Your task to perform on an android device: Show me popular games on the Play Store Image 0: 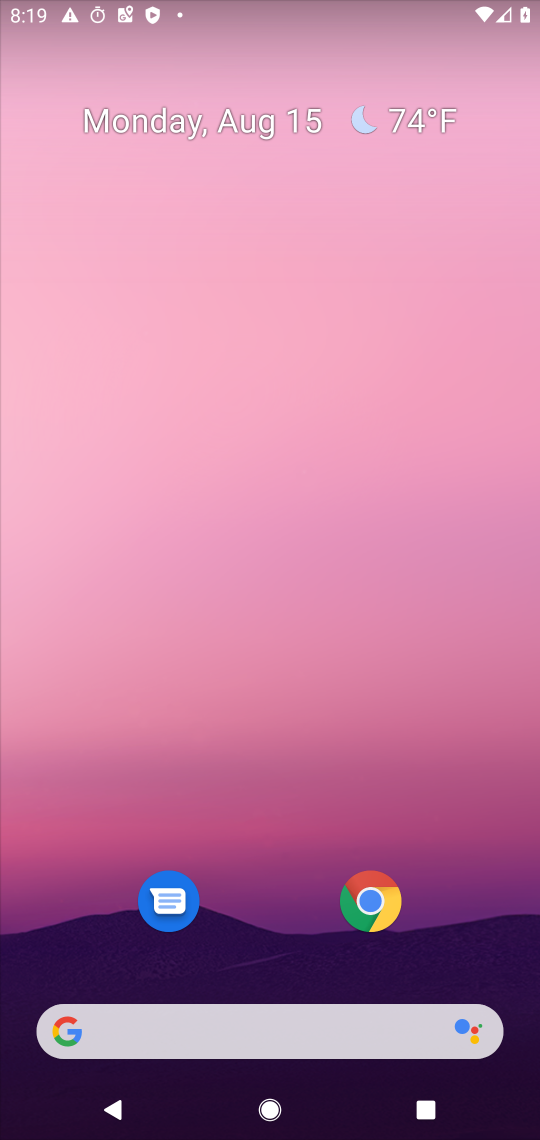
Step 0: drag from (241, 804) to (271, 158)
Your task to perform on an android device: Show me popular games on the Play Store Image 1: 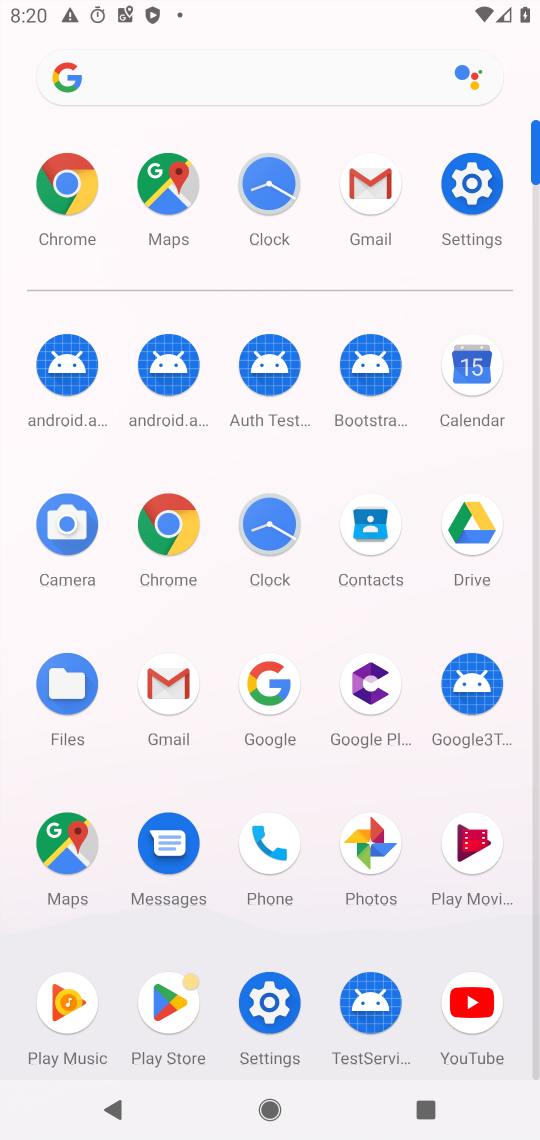
Step 1: click (166, 1014)
Your task to perform on an android device: Show me popular games on the Play Store Image 2: 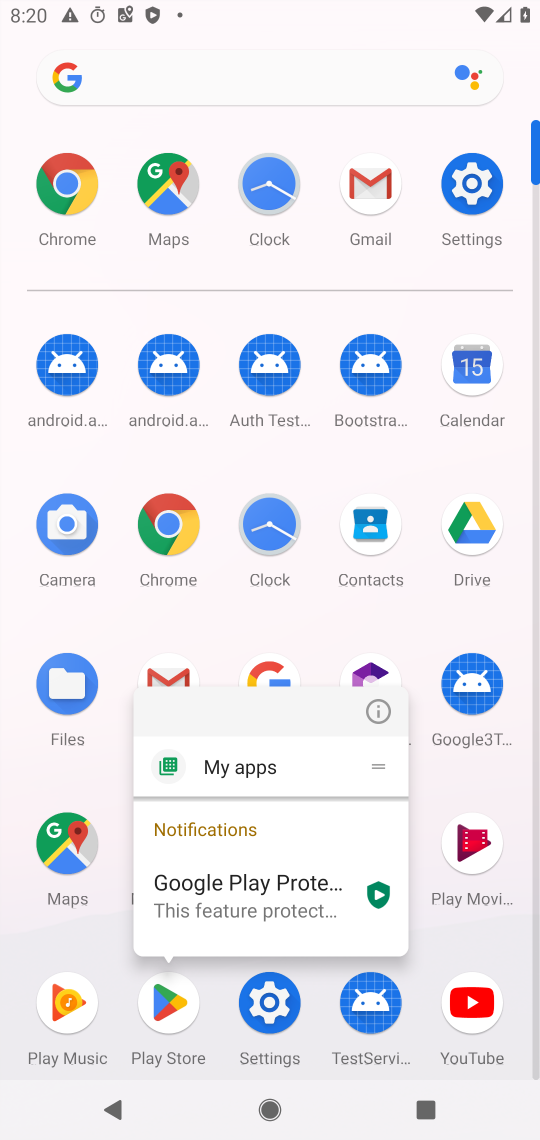
Step 2: click (166, 1014)
Your task to perform on an android device: Show me popular games on the Play Store Image 3: 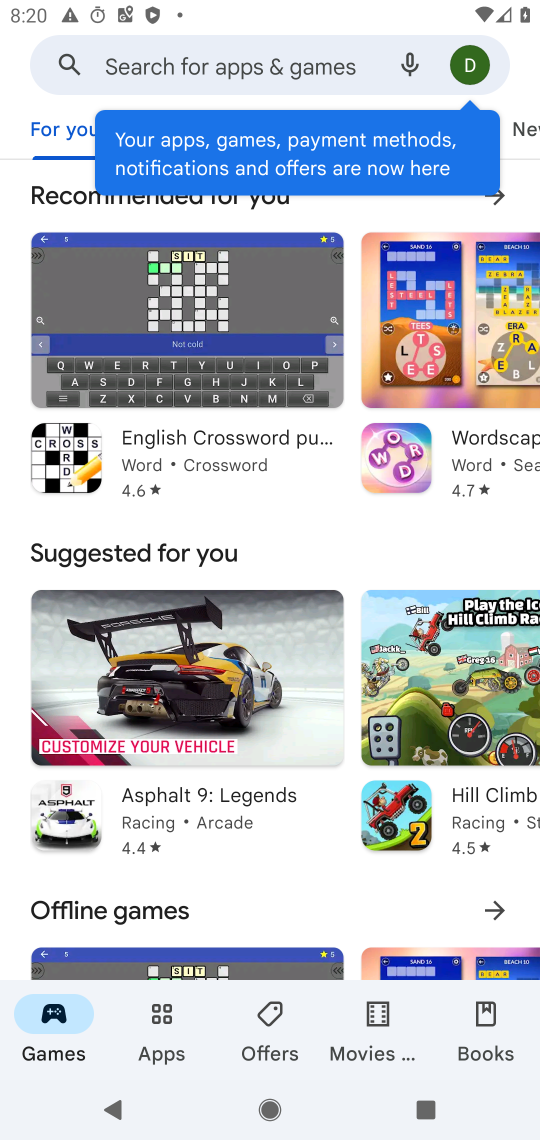
Step 3: drag from (68, 127) to (6, 139)
Your task to perform on an android device: Show me popular games on the Play Store Image 4: 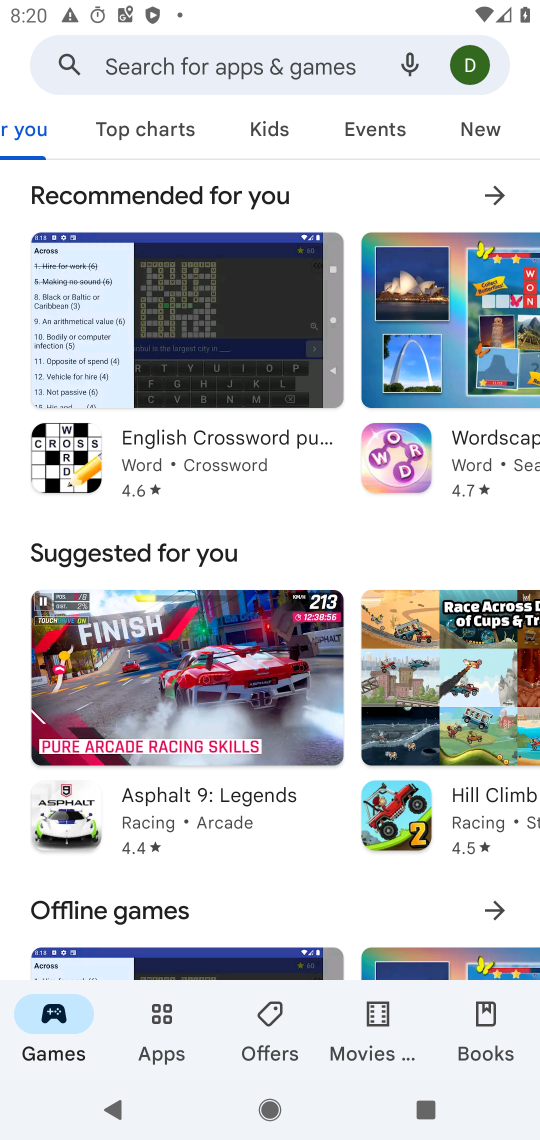
Step 4: click (140, 128)
Your task to perform on an android device: Show me popular games on the Play Store Image 5: 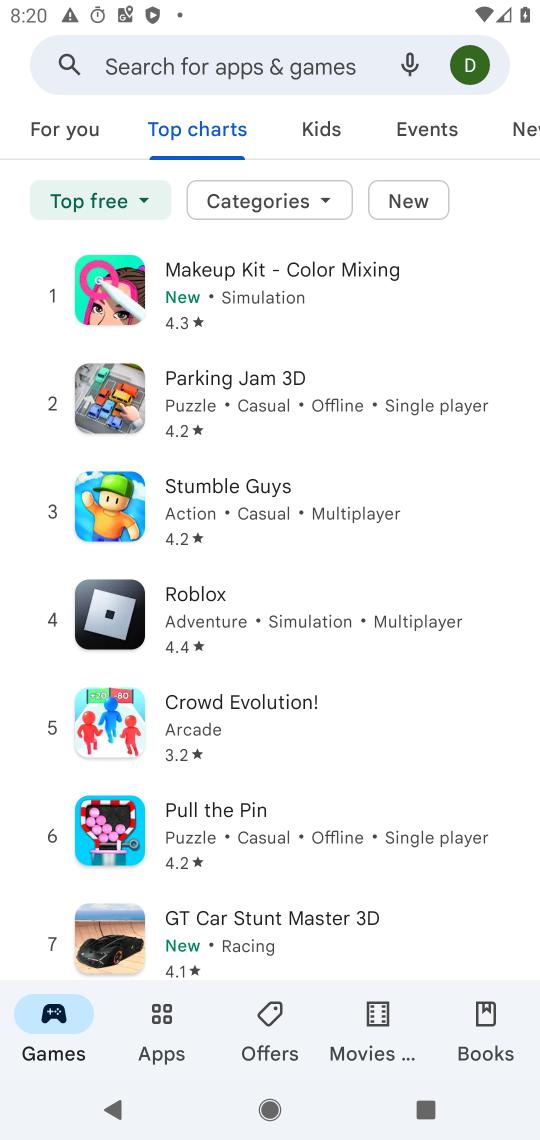
Step 5: task complete